Your task to perform on an android device: visit the assistant section in the google photos Image 0: 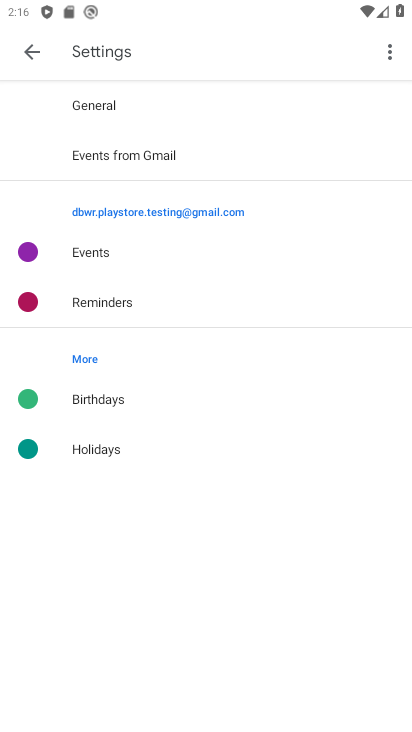
Step 0: press back button
Your task to perform on an android device: visit the assistant section in the google photos Image 1: 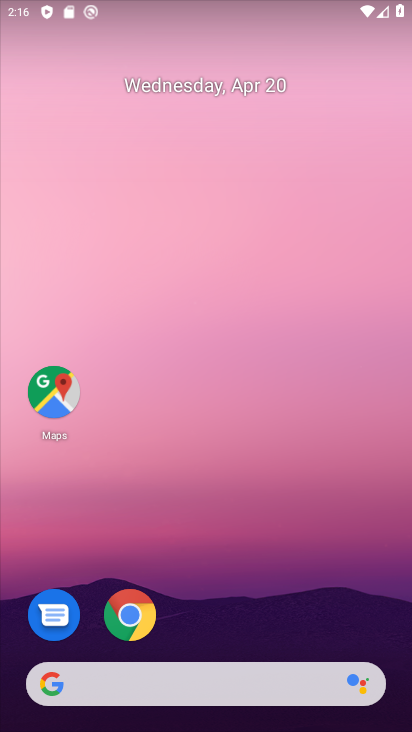
Step 1: drag from (211, 575) to (314, 110)
Your task to perform on an android device: visit the assistant section in the google photos Image 2: 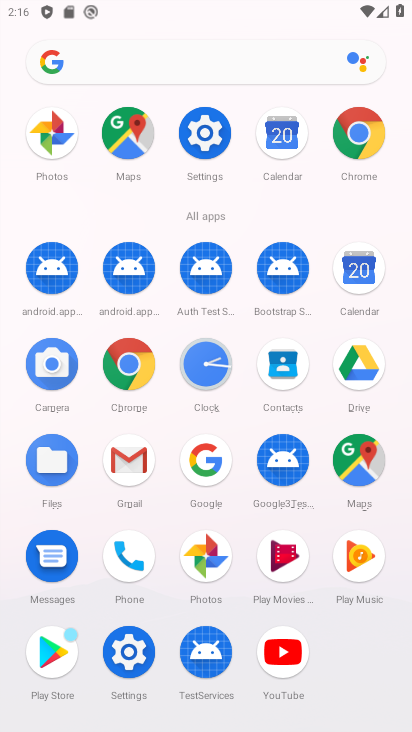
Step 2: click (212, 563)
Your task to perform on an android device: visit the assistant section in the google photos Image 3: 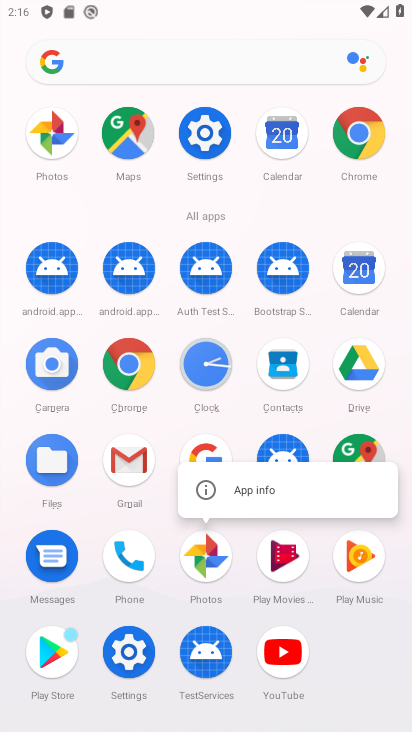
Step 3: click (212, 558)
Your task to perform on an android device: visit the assistant section in the google photos Image 4: 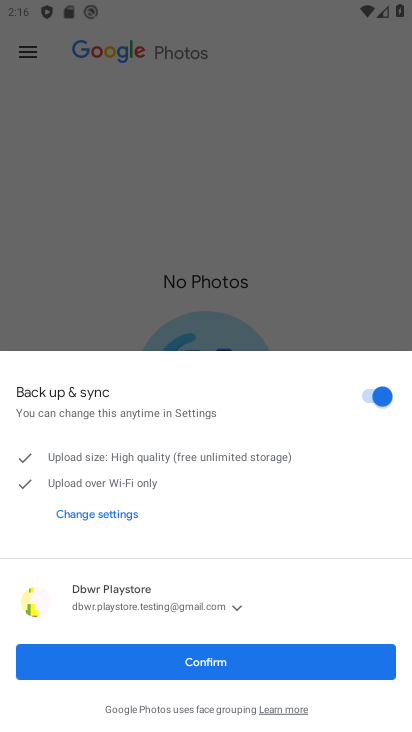
Step 4: click (253, 658)
Your task to perform on an android device: visit the assistant section in the google photos Image 5: 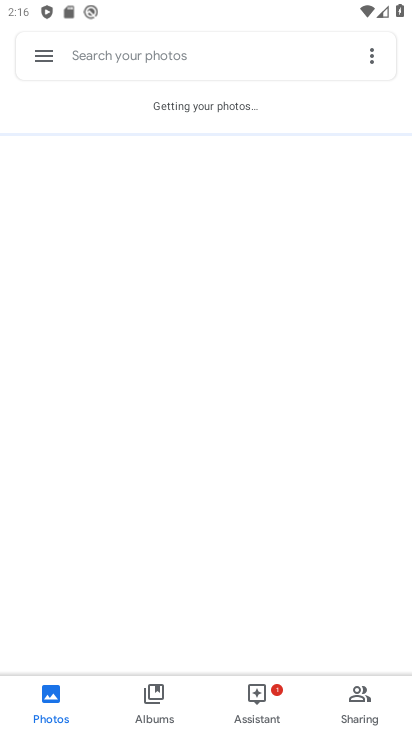
Step 5: click (258, 704)
Your task to perform on an android device: visit the assistant section in the google photos Image 6: 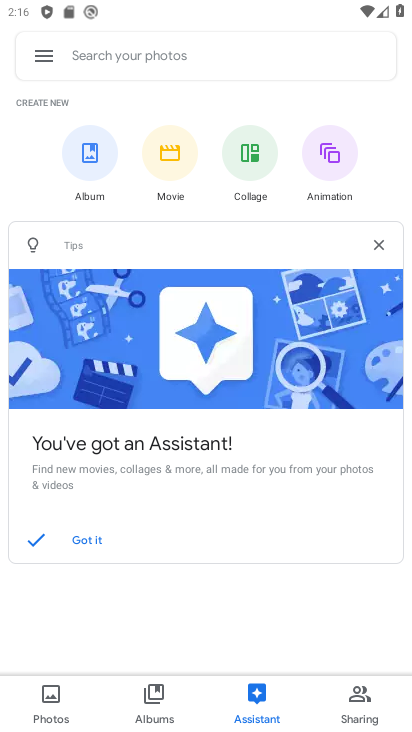
Step 6: task complete